Your task to perform on an android device: Turn off the flashlight Image 0: 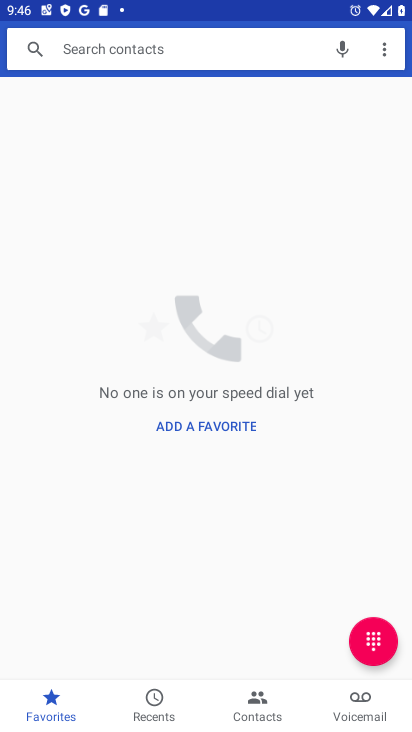
Step 0: press home button
Your task to perform on an android device: Turn off the flashlight Image 1: 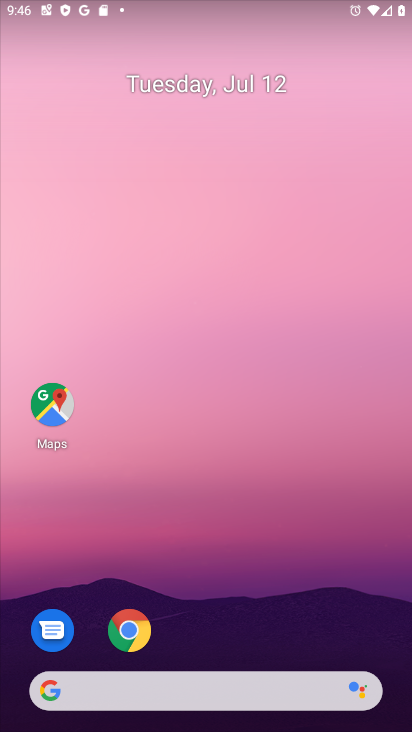
Step 1: drag from (198, 622) to (183, 137)
Your task to perform on an android device: Turn off the flashlight Image 2: 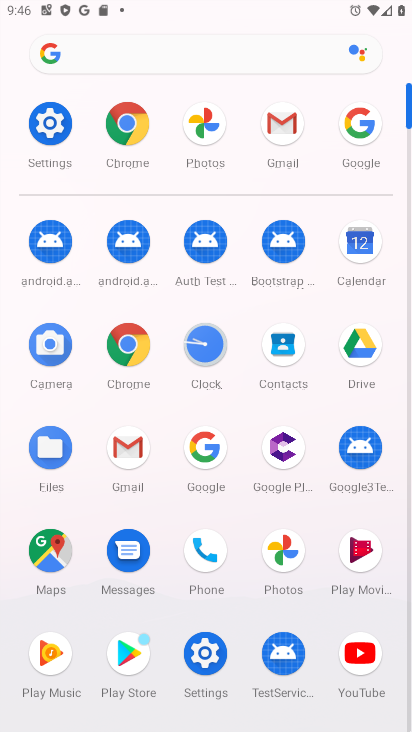
Step 2: click (47, 125)
Your task to perform on an android device: Turn off the flashlight Image 3: 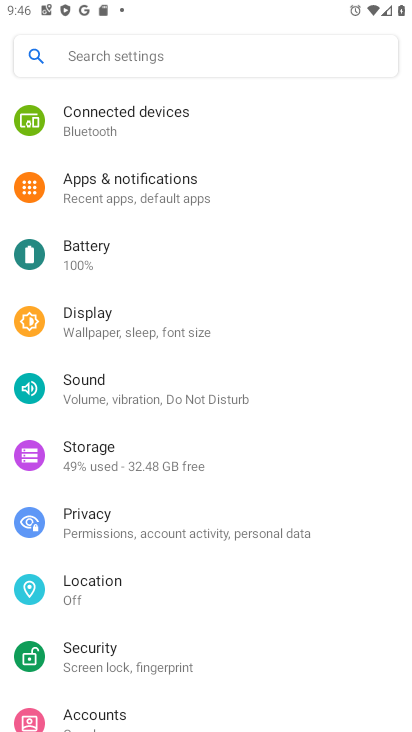
Step 3: click (219, 58)
Your task to perform on an android device: Turn off the flashlight Image 4: 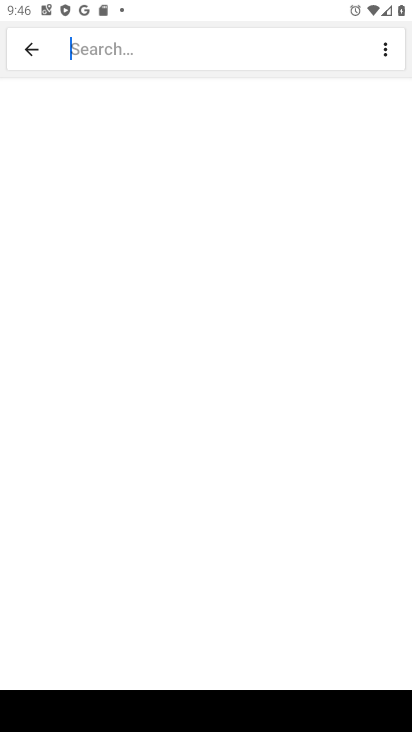
Step 4: type "flashlight"
Your task to perform on an android device: Turn off the flashlight Image 5: 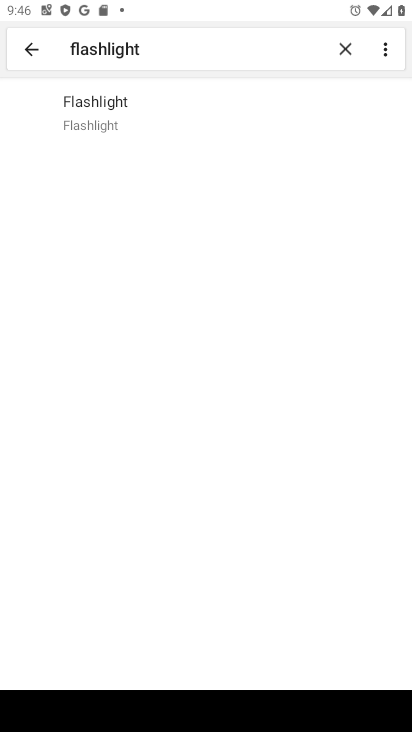
Step 5: task complete